Your task to perform on an android device: Open calendar and show me the first week of next month Image 0: 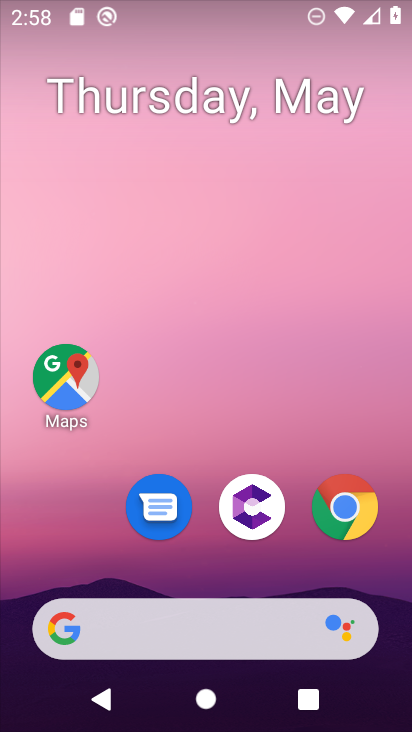
Step 0: drag from (193, 571) to (119, 58)
Your task to perform on an android device: Open calendar and show me the first week of next month Image 1: 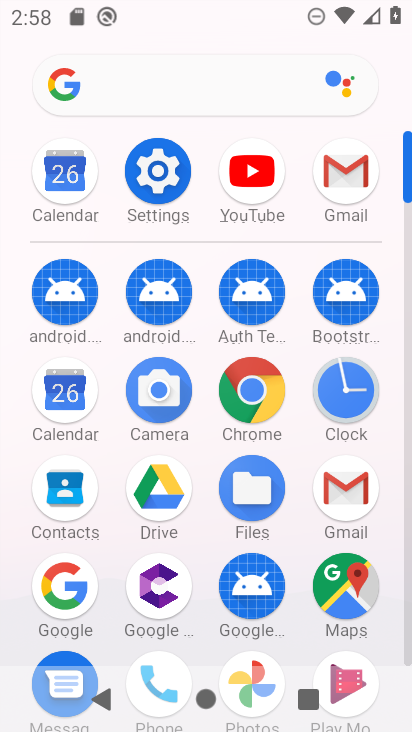
Step 1: click (60, 164)
Your task to perform on an android device: Open calendar and show me the first week of next month Image 2: 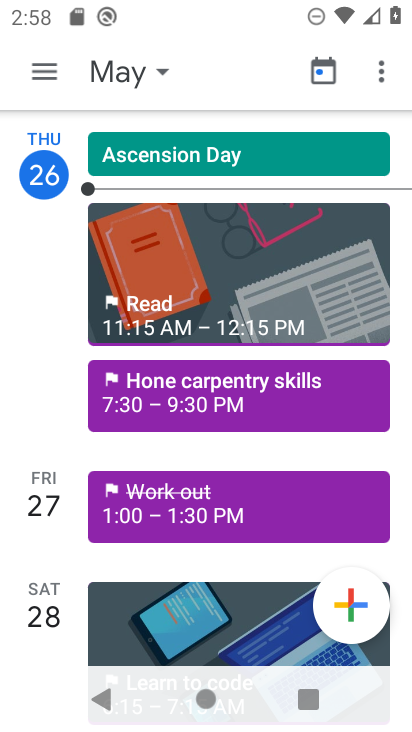
Step 2: drag from (49, 73) to (269, 74)
Your task to perform on an android device: Open calendar and show me the first week of next month Image 3: 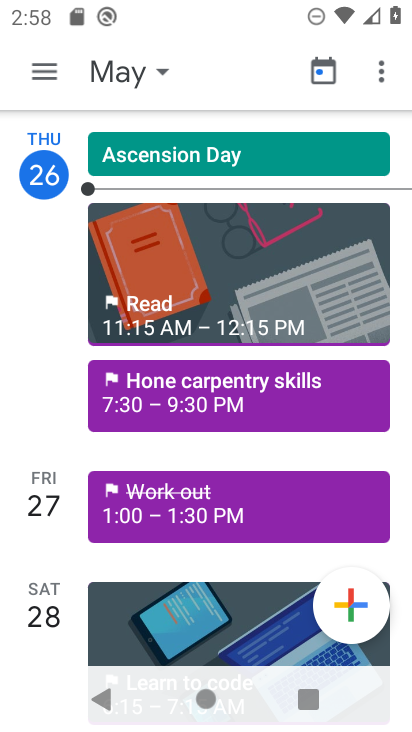
Step 3: click (329, 70)
Your task to perform on an android device: Open calendar and show me the first week of next month Image 4: 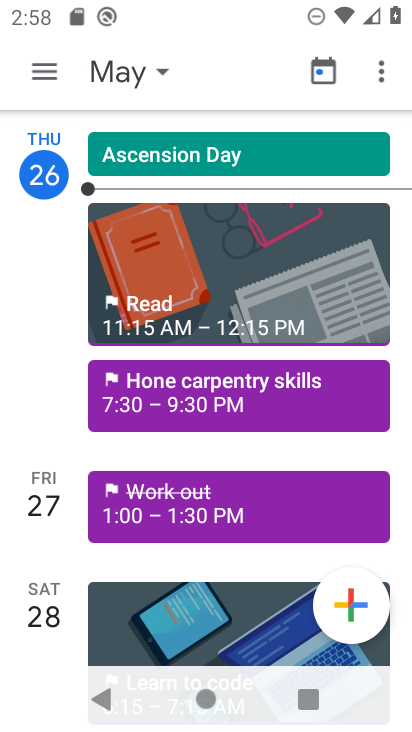
Step 4: click (128, 75)
Your task to perform on an android device: Open calendar and show me the first week of next month Image 5: 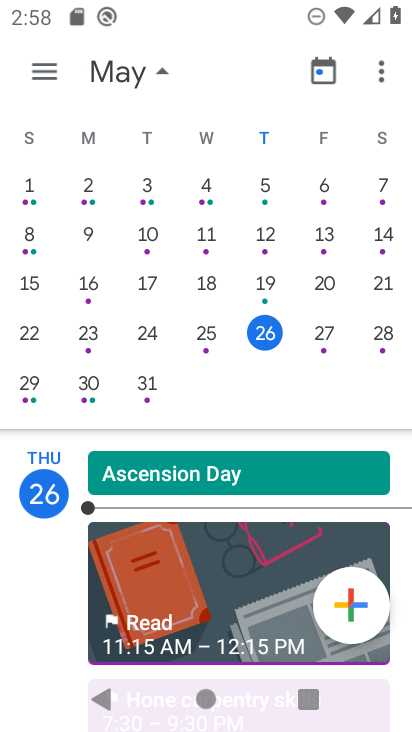
Step 5: drag from (343, 250) to (0, 232)
Your task to perform on an android device: Open calendar and show me the first week of next month Image 6: 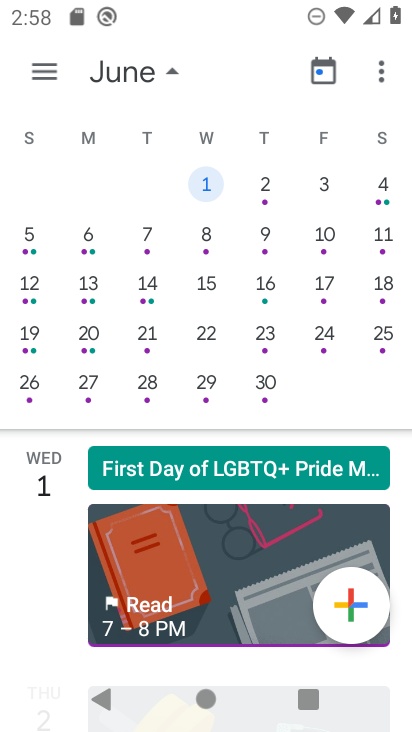
Step 6: click (47, 68)
Your task to perform on an android device: Open calendar and show me the first week of next month Image 7: 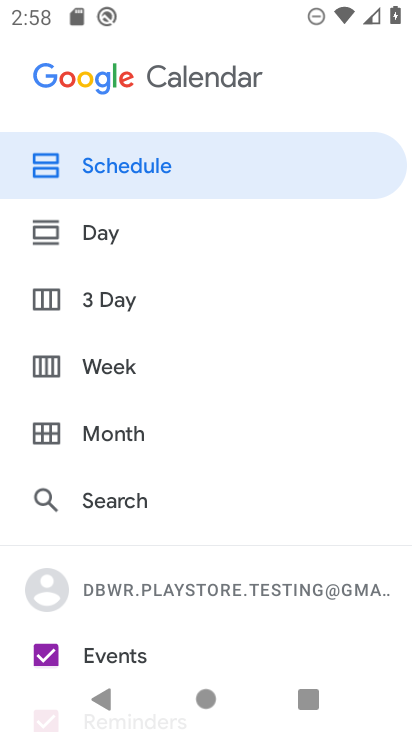
Step 7: click (111, 372)
Your task to perform on an android device: Open calendar and show me the first week of next month Image 8: 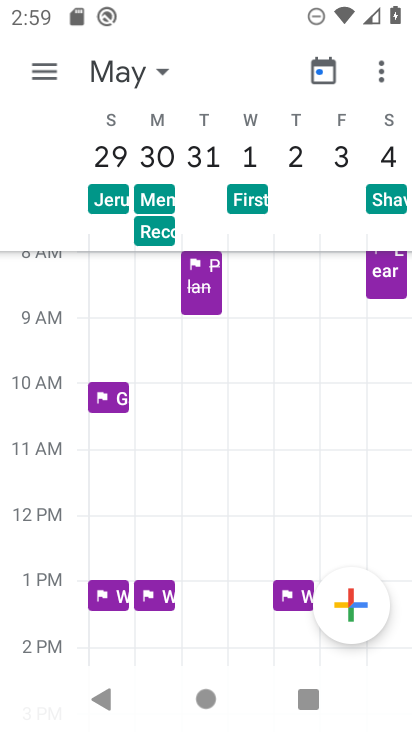
Step 8: click (47, 72)
Your task to perform on an android device: Open calendar and show me the first week of next month Image 9: 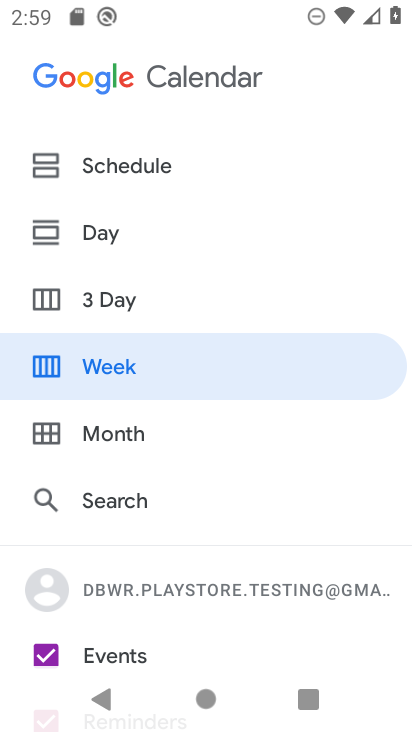
Step 9: click (117, 432)
Your task to perform on an android device: Open calendar and show me the first week of next month Image 10: 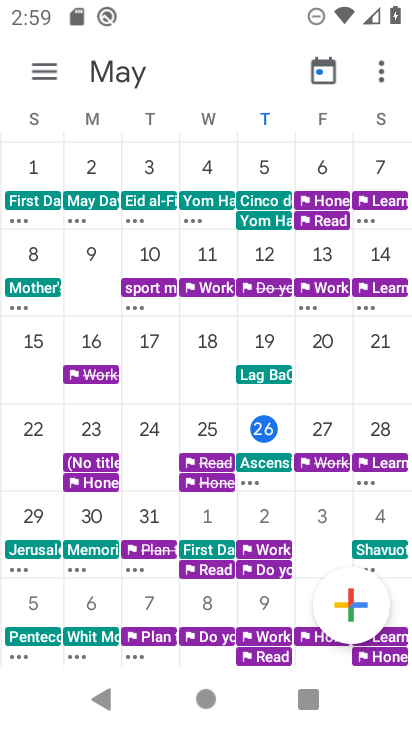
Step 10: task complete